Your task to perform on an android device: open the mobile data screen to see how much data has been used Image 0: 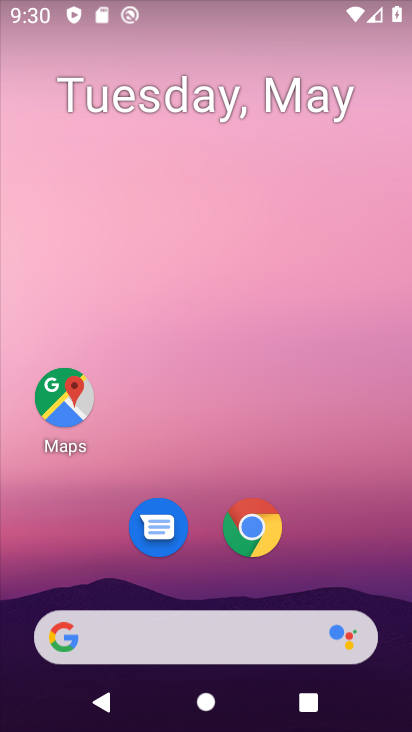
Step 0: drag from (199, 601) to (190, 26)
Your task to perform on an android device: open the mobile data screen to see how much data has been used Image 1: 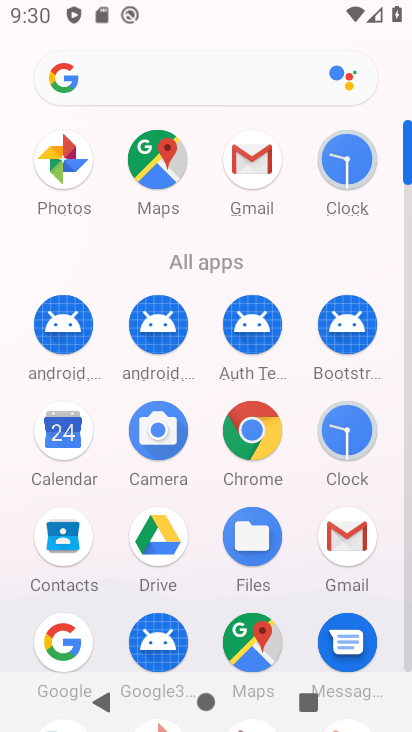
Step 1: drag from (198, 573) to (126, 43)
Your task to perform on an android device: open the mobile data screen to see how much data has been used Image 2: 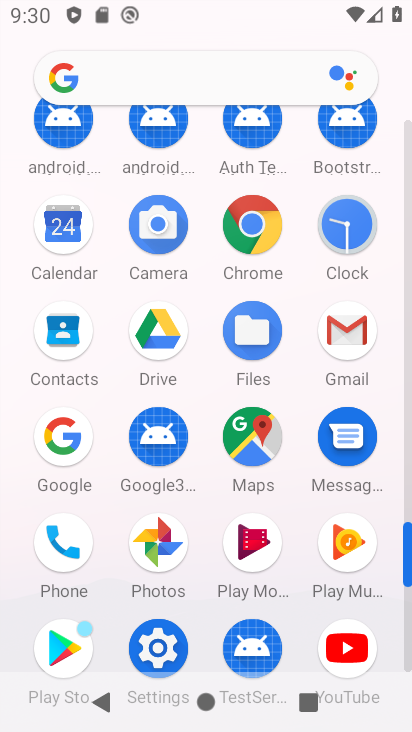
Step 2: click (156, 644)
Your task to perform on an android device: open the mobile data screen to see how much data has been used Image 3: 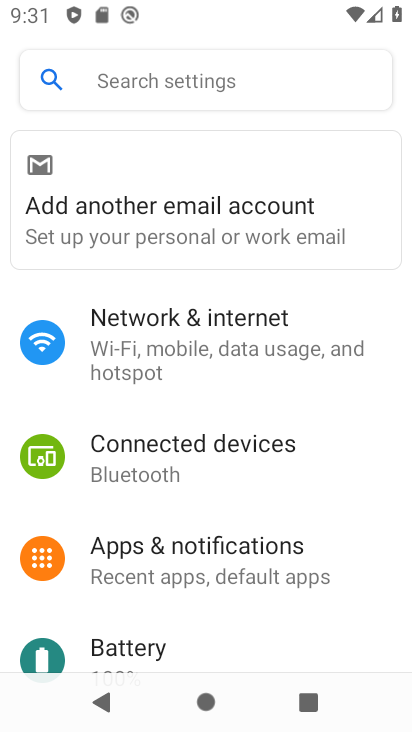
Step 3: click (128, 326)
Your task to perform on an android device: open the mobile data screen to see how much data has been used Image 4: 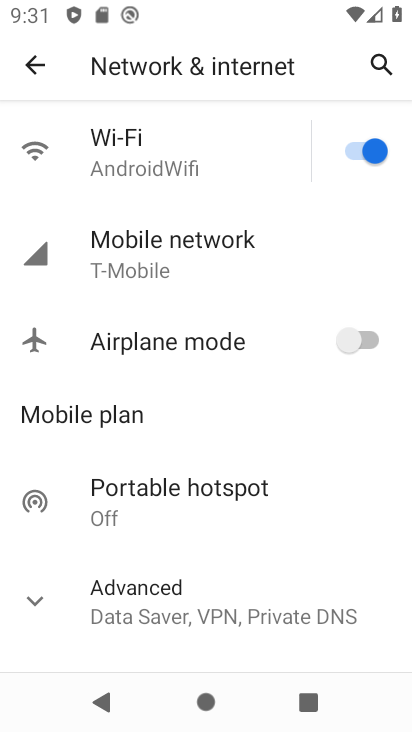
Step 4: click (147, 243)
Your task to perform on an android device: open the mobile data screen to see how much data has been used Image 5: 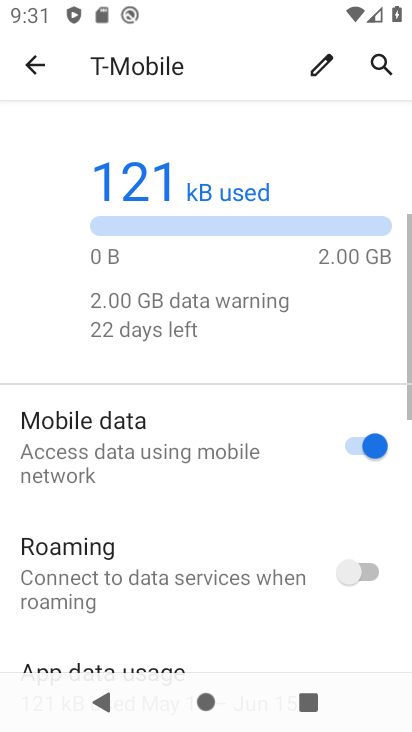
Step 5: task complete